Your task to perform on an android device: clear all cookies in the chrome app Image 0: 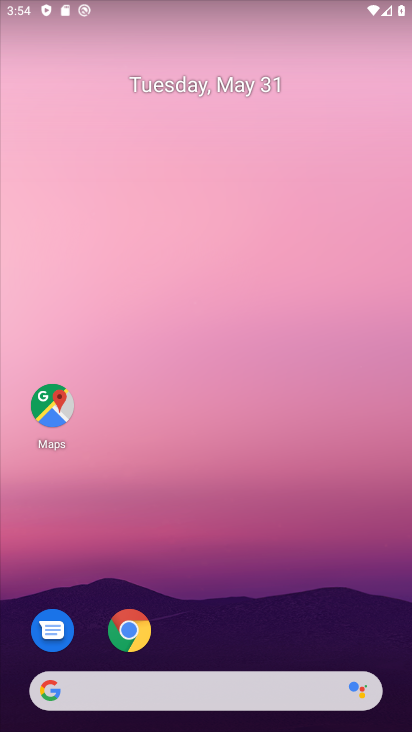
Step 0: drag from (273, 579) to (195, 21)
Your task to perform on an android device: clear all cookies in the chrome app Image 1: 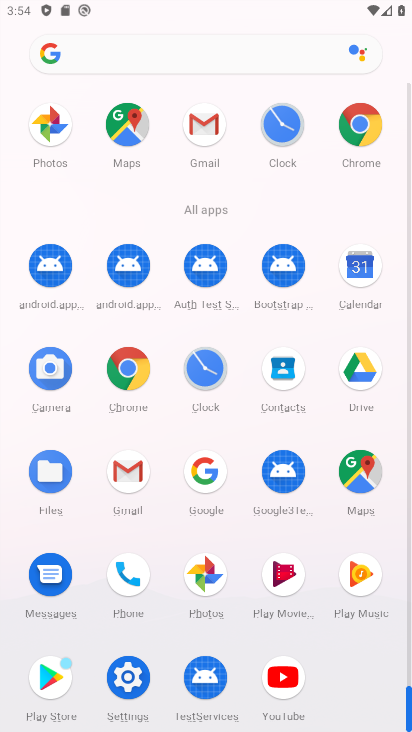
Step 1: drag from (13, 574) to (11, 182)
Your task to perform on an android device: clear all cookies in the chrome app Image 2: 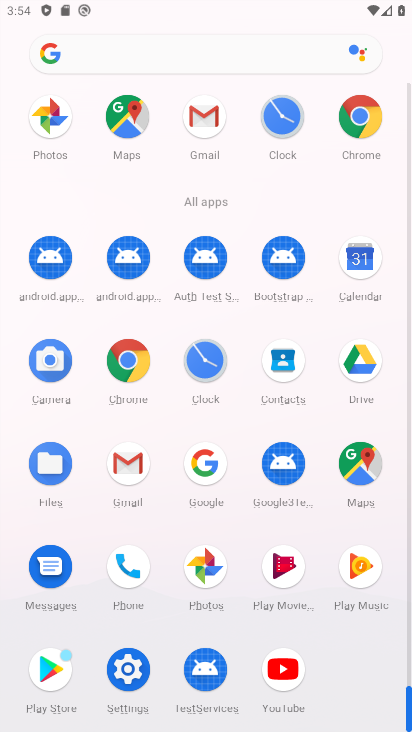
Step 2: click (130, 359)
Your task to perform on an android device: clear all cookies in the chrome app Image 3: 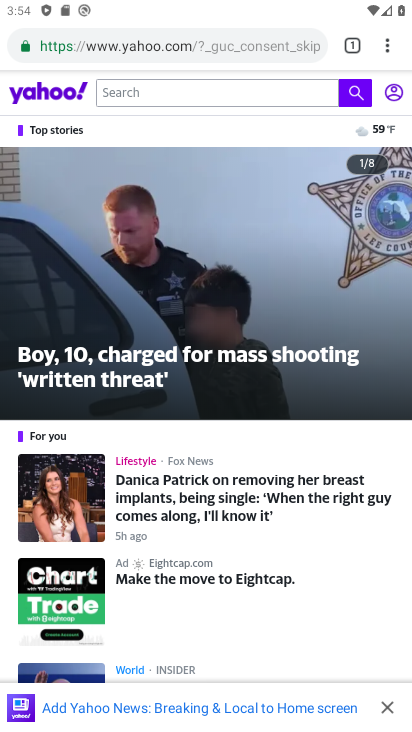
Step 3: drag from (382, 44) to (233, 540)
Your task to perform on an android device: clear all cookies in the chrome app Image 4: 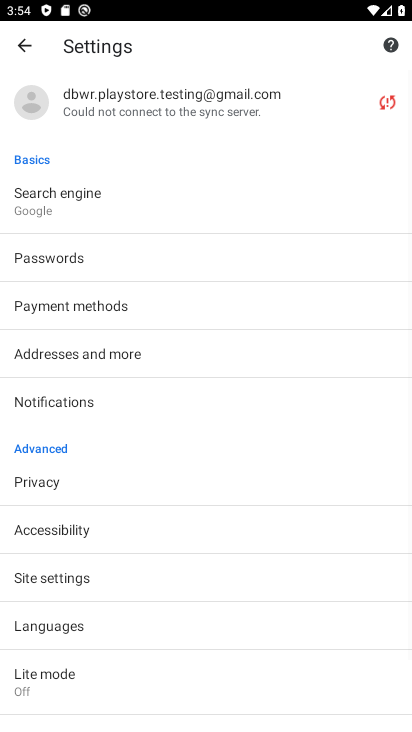
Step 4: drag from (245, 588) to (262, 206)
Your task to perform on an android device: clear all cookies in the chrome app Image 5: 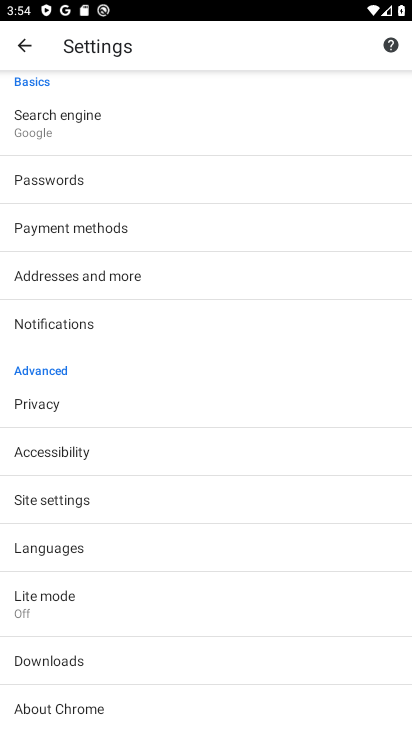
Step 5: drag from (231, 532) to (230, 190)
Your task to perform on an android device: clear all cookies in the chrome app Image 6: 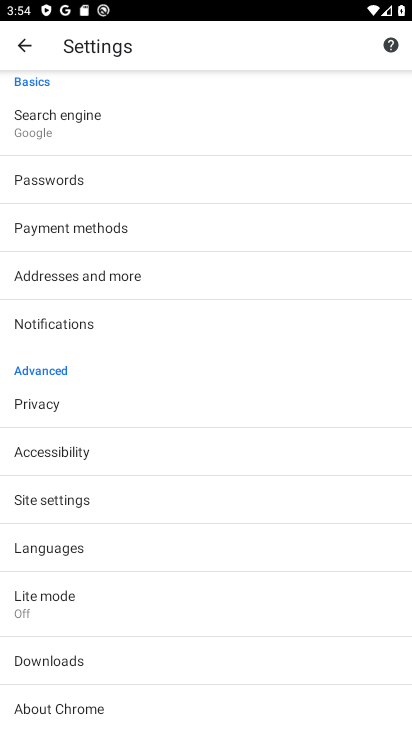
Step 6: click (86, 407)
Your task to perform on an android device: clear all cookies in the chrome app Image 7: 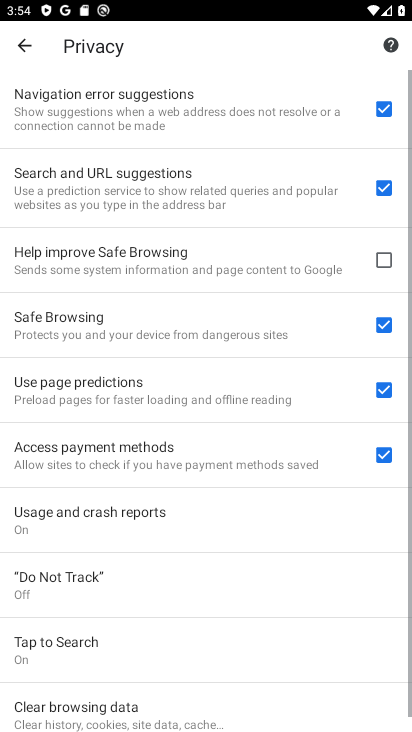
Step 7: drag from (233, 373) to (236, 125)
Your task to perform on an android device: clear all cookies in the chrome app Image 8: 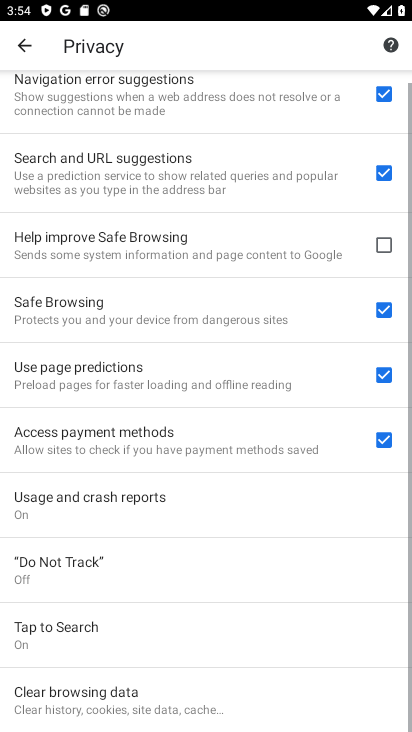
Step 8: click (144, 694)
Your task to perform on an android device: clear all cookies in the chrome app Image 9: 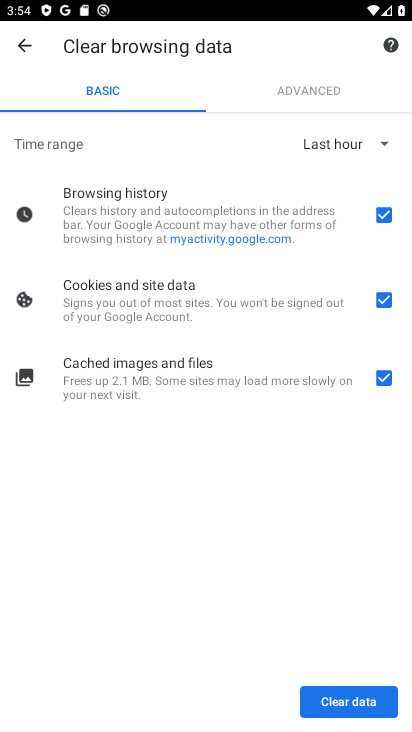
Step 9: click (389, 208)
Your task to perform on an android device: clear all cookies in the chrome app Image 10: 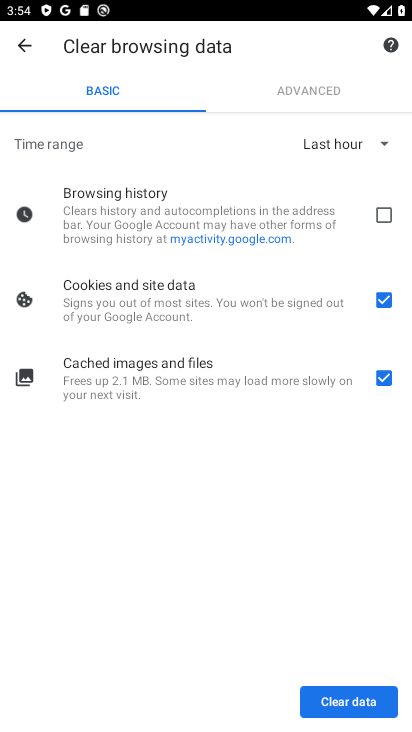
Step 10: click (383, 377)
Your task to perform on an android device: clear all cookies in the chrome app Image 11: 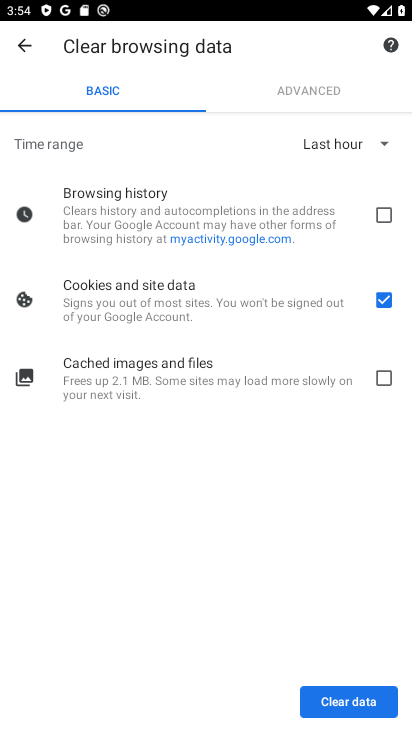
Step 11: click (350, 706)
Your task to perform on an android device: clear all cookies in the chrome app Image 12: 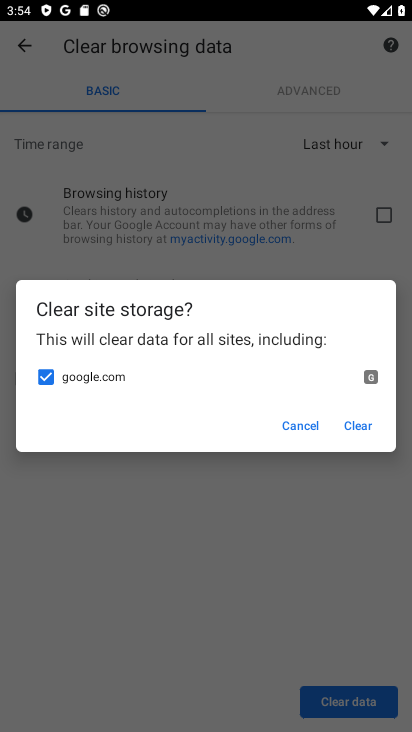
Step 12: click (356, 417)
Your task to perform on an android device: clear all cookies in the chrome app Image 13: 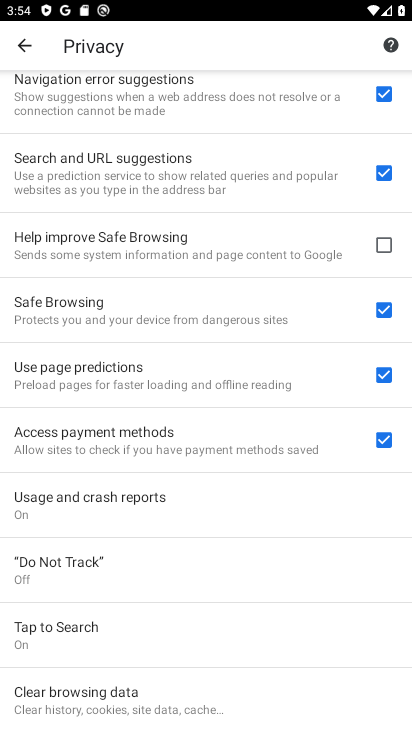
Step 13: task complete